Your task to perform on an android device: Set the phone to "Do not disturb". Image 0: 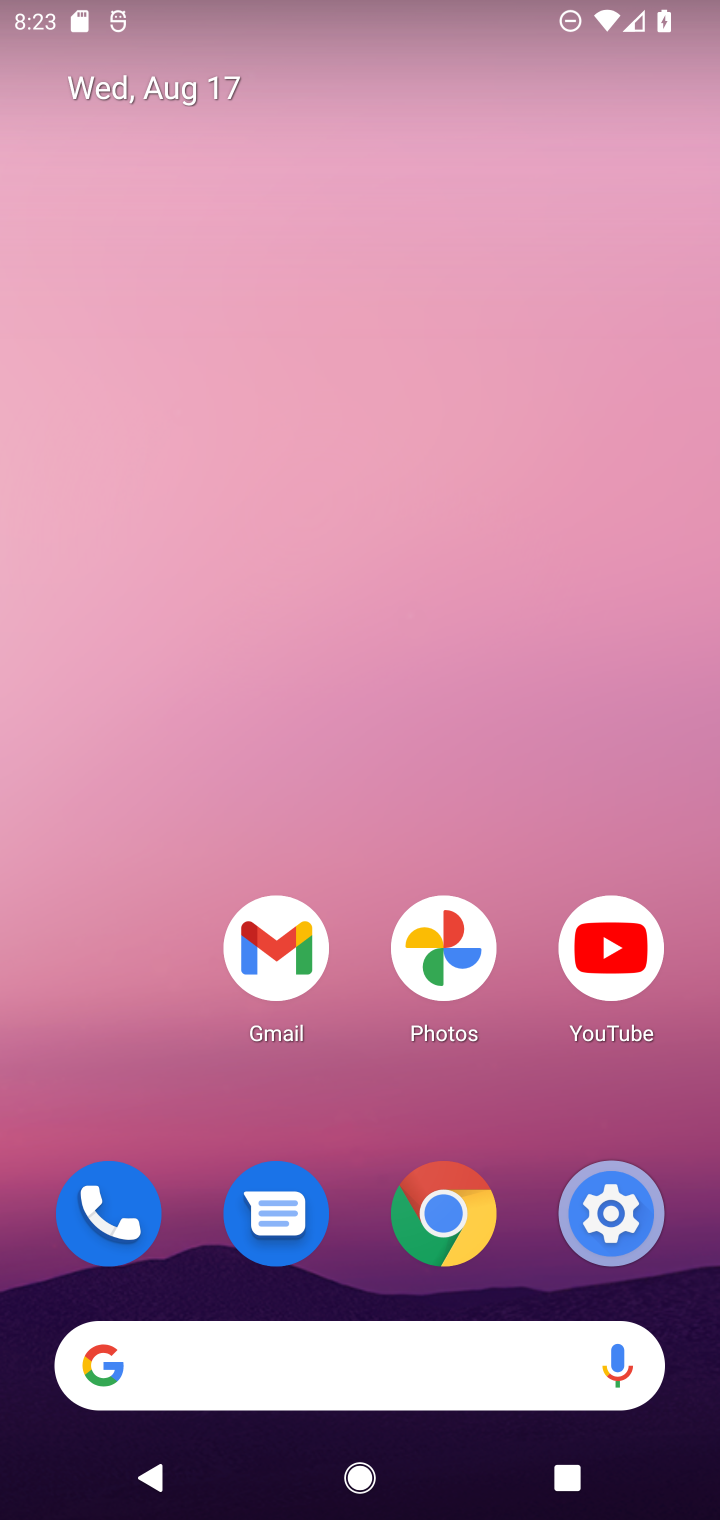
Step 0: click (616, 1231)
Your task to perform on an android device: Set the phone to "Do not disturb". Image 1: 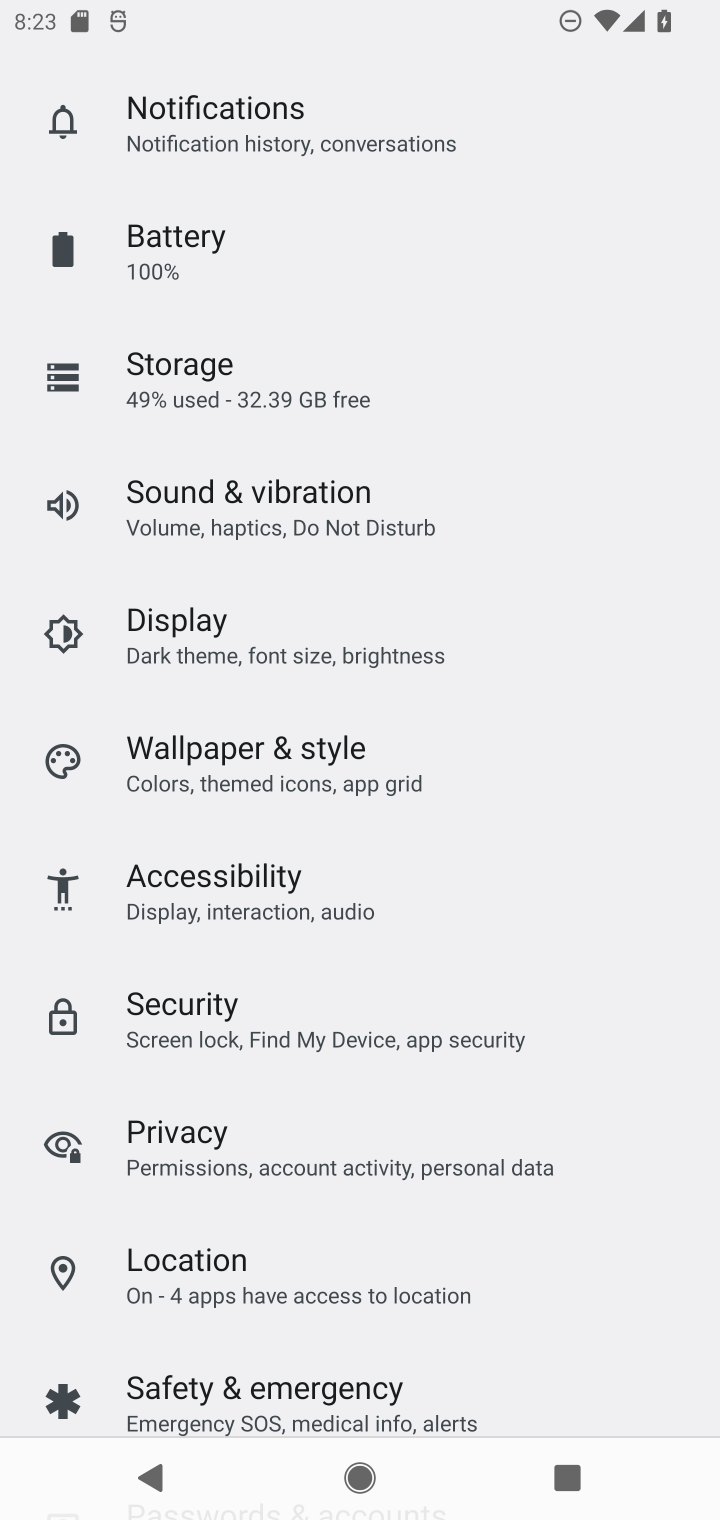
Step 1: drag from (276, 1335) to (300, 827)
Your task to perform on an android device: Set the phone to "Do not disturb". Image 2: 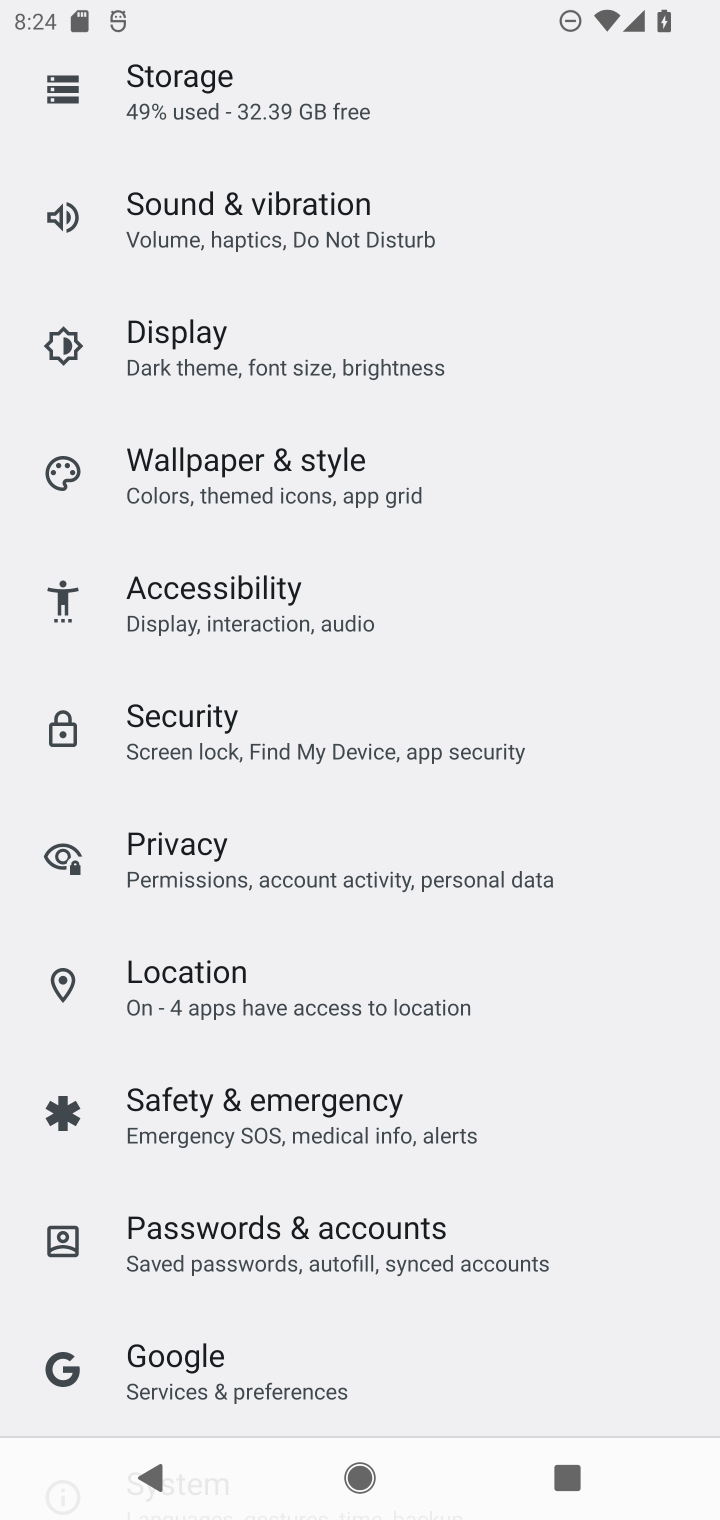
Step 2: click (322, 197)
Your task to perform on an android device: Set the phone to "Do not disturb". Image 3: 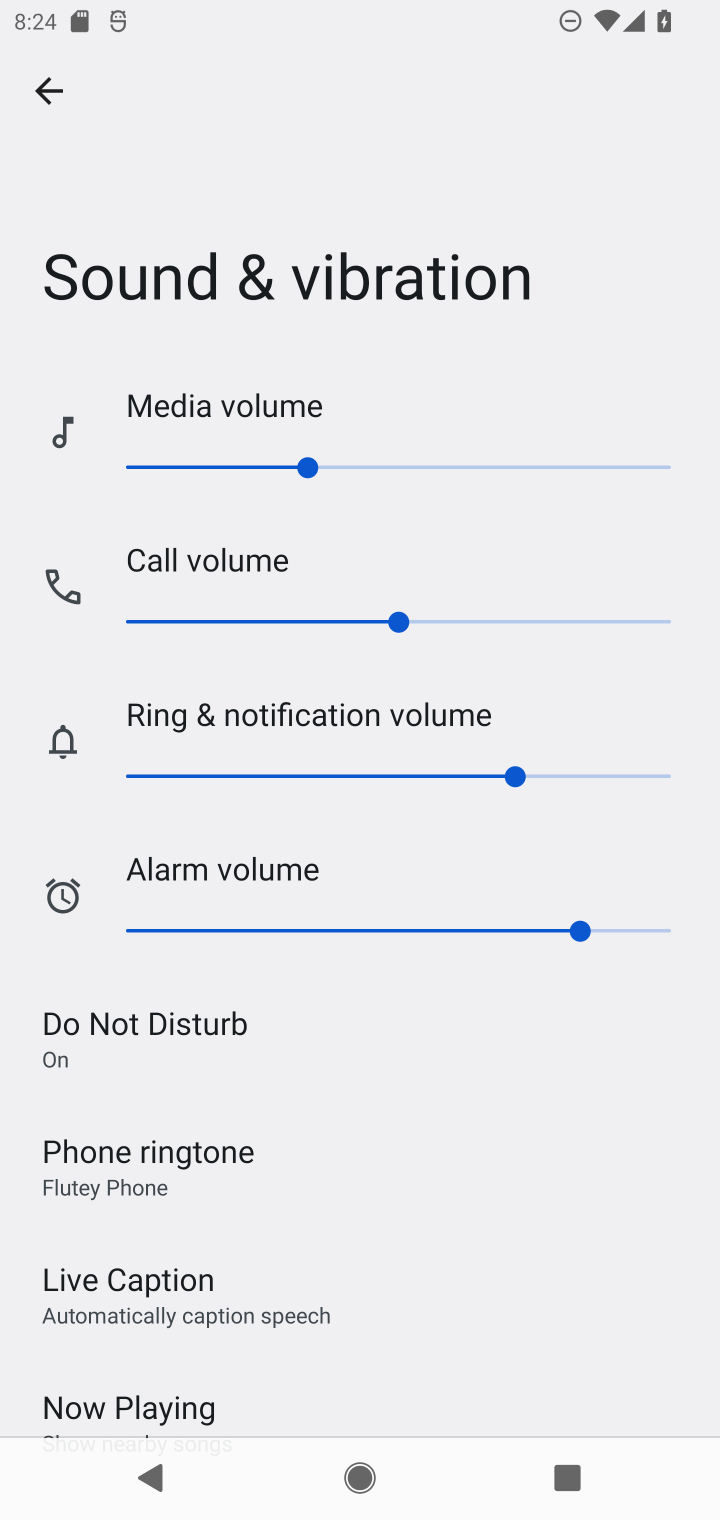
Step 3: click (203, 1071)
Your task to perform on an android device: Set the phone to "Do not disturb". Image 4: 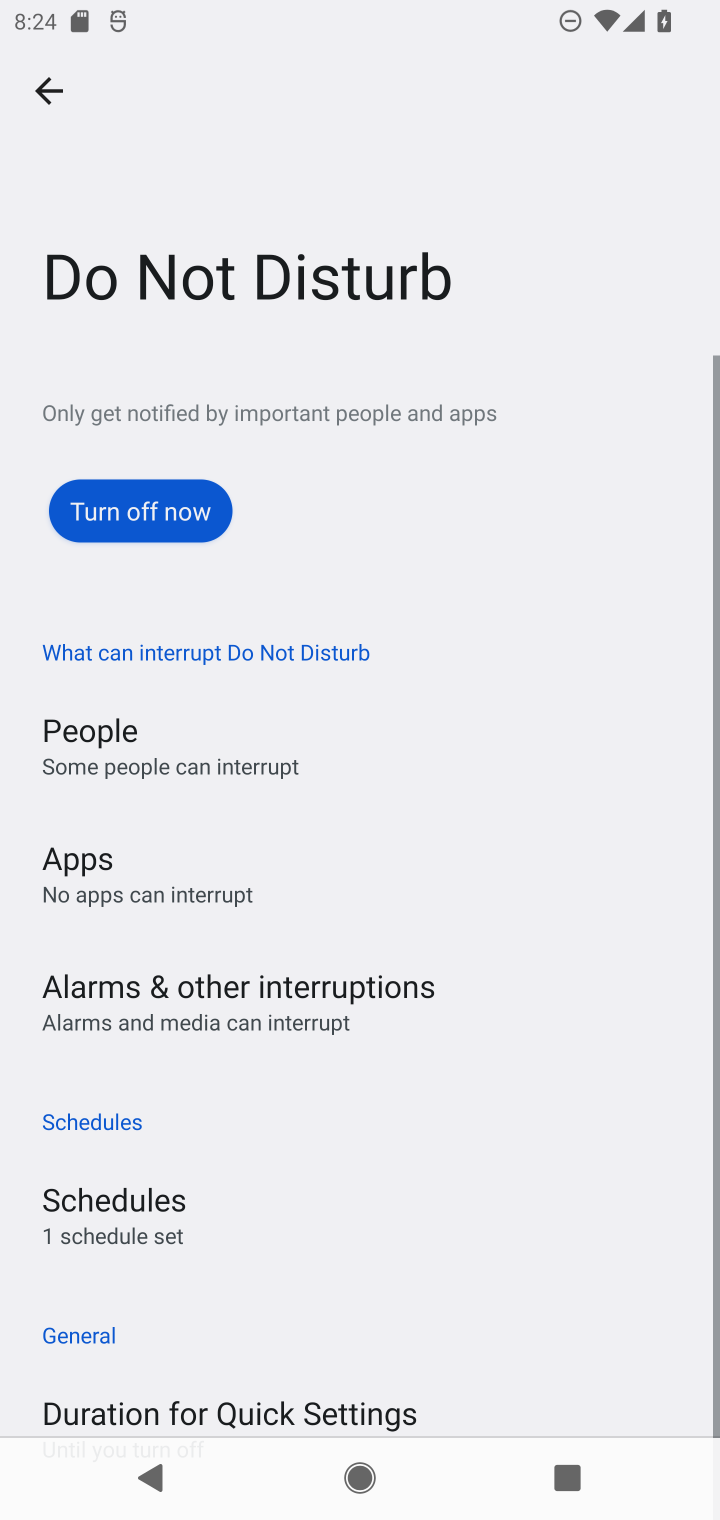
Step 4: task complete